Your task to perform on an android device: empty trash in the gmail app Image 0: 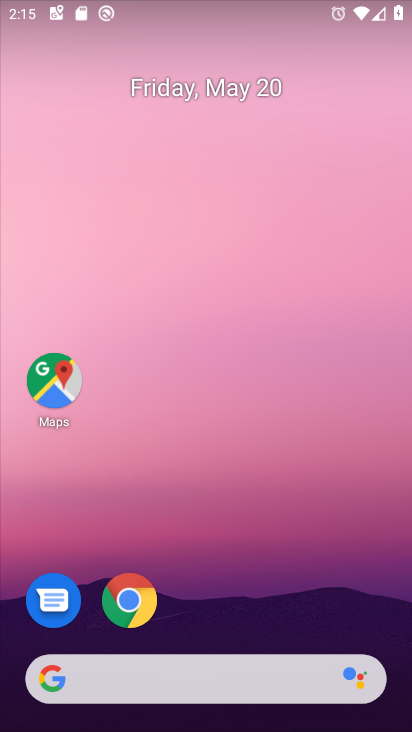
Step 0: drag from (225, 541) to (263, 137)
Your task to perform on an android device: empty trash in the gmail app Image 1: 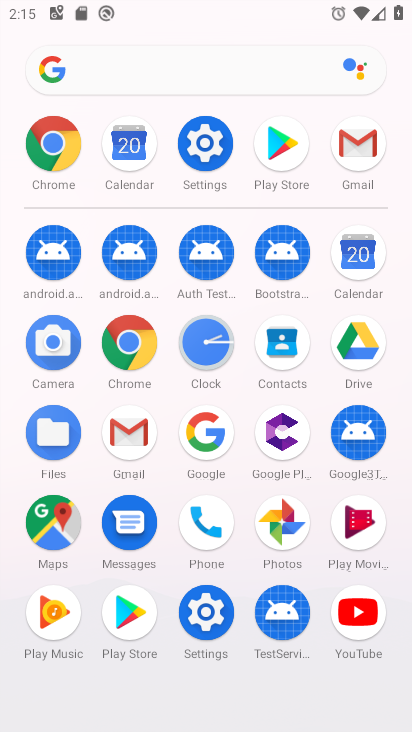
Step 1: click (140, 437)
Your task to perform on an android device: empty trash in the gmail app Image 2: 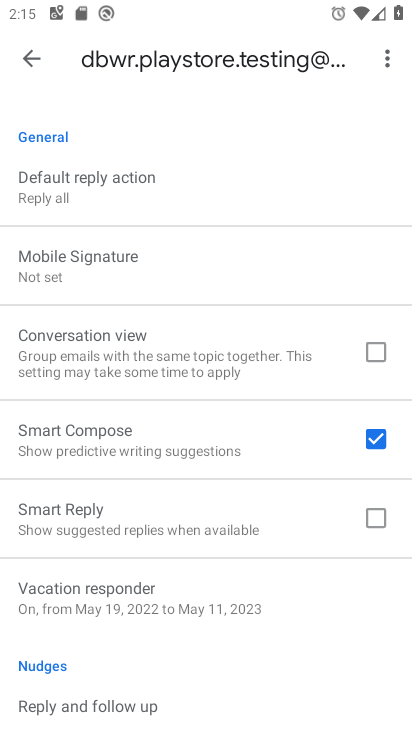
Step 2: click (36, 49)
Your task to perform on an android device: empty trash in the gmail app Image 3: 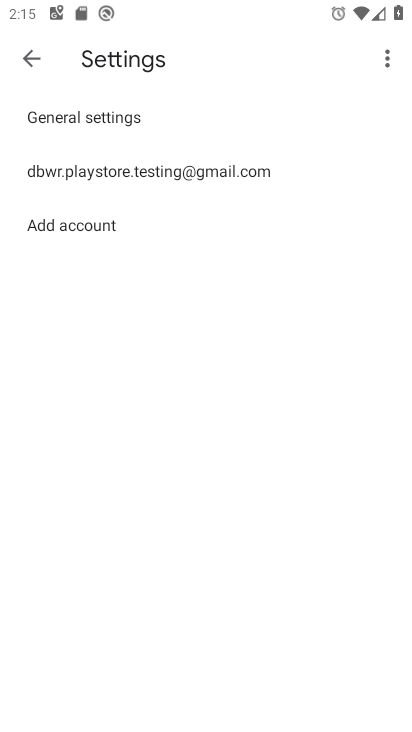
Step 3: click (34, 53)
Your task to perform on an android device: empty trash in the gmail app Image 4: 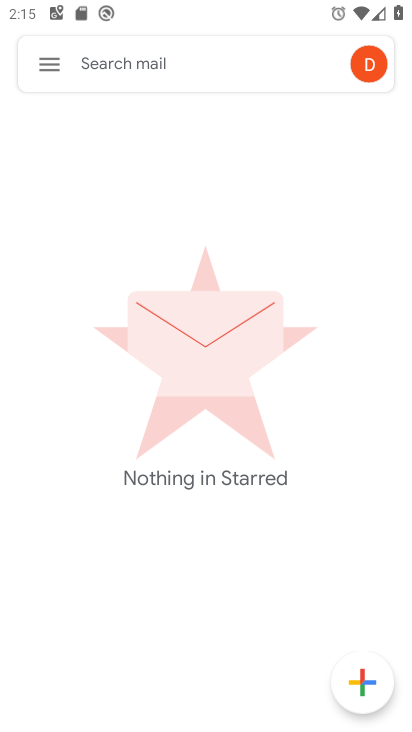
Step 4: click (33, 60)
Your task to perform on an android device: empty trash in the gmail app Image 5: 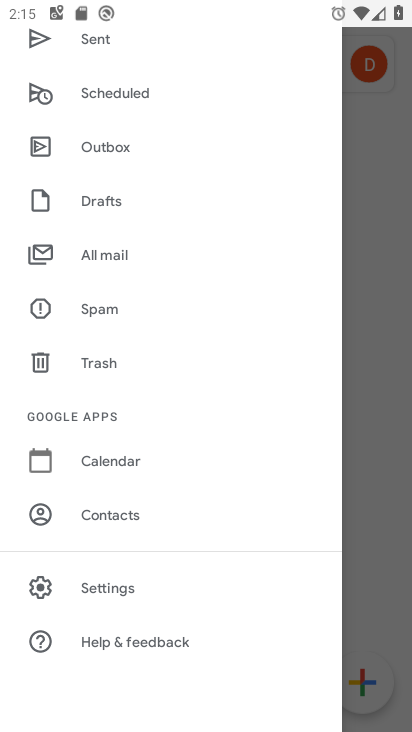
Step 5: click (109, 358)
Your task to perform on an android device: empty trash in the gmail app Image 6: 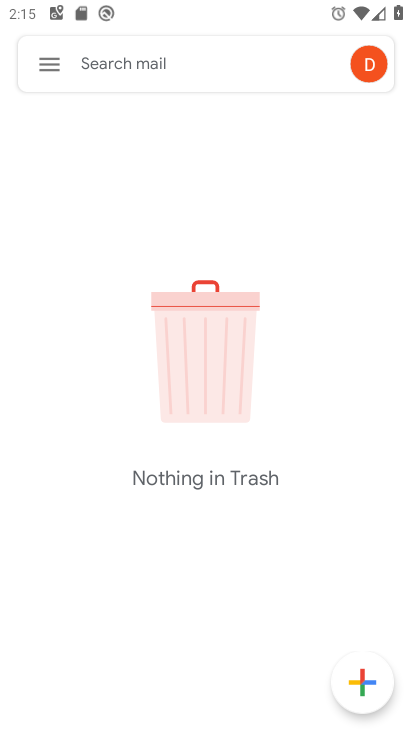
Step 6: task complete